Your task to perform on an android device: Open Google Chrome and click the shortcut for Amazon.com Image 0: 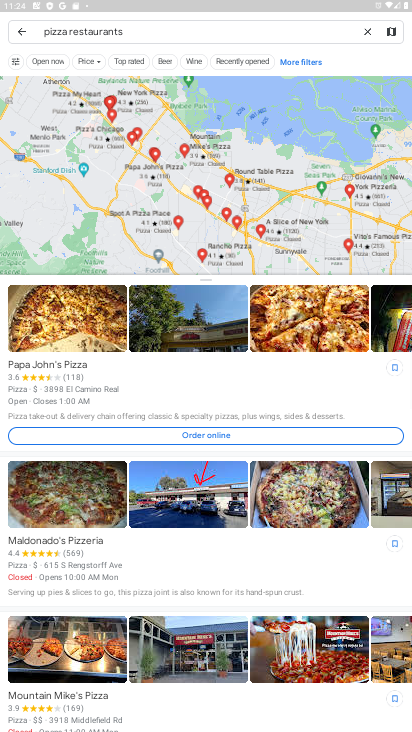
Step 0: press home button
Your task to perform on an android device: Open Google Chrome and click the shortcut for Amazon.com Image 1: 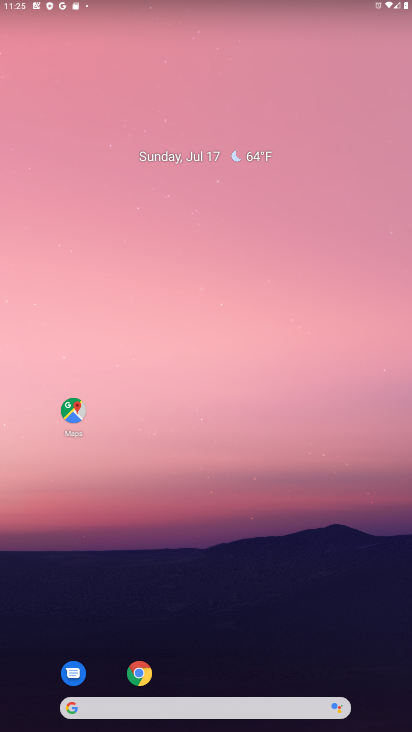
Step 1: drag from (168, 700) to (220, 111)
Your task to perform on an android device: Open Google Chrome and click the shortcut for Amazon.com Image 2: 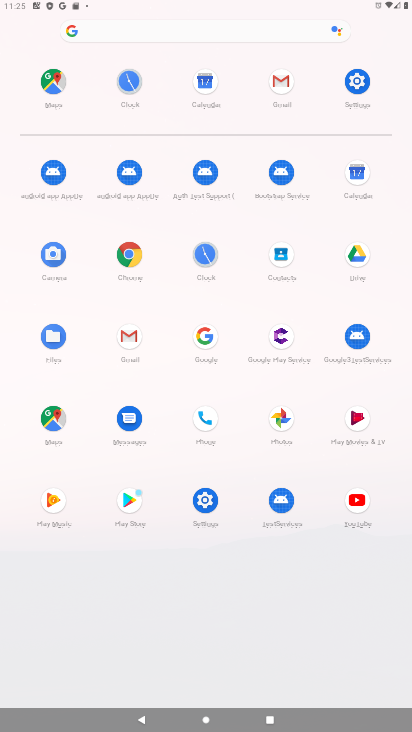
Step 2: click (129, 255)
Your task to perform on an android device: Open Google Chrome and click the shortcut for Amazon.com Image 3: 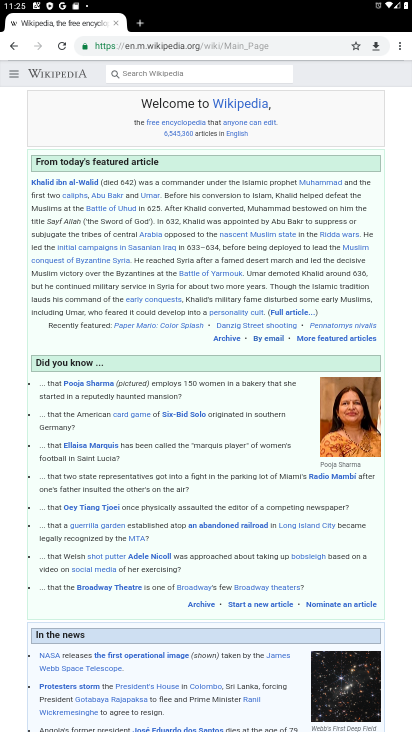
Step 3: click (141, 24)
Your task to perform on an android device: Open Google Chrome and click the shortcut for Amazon.com Image 4: 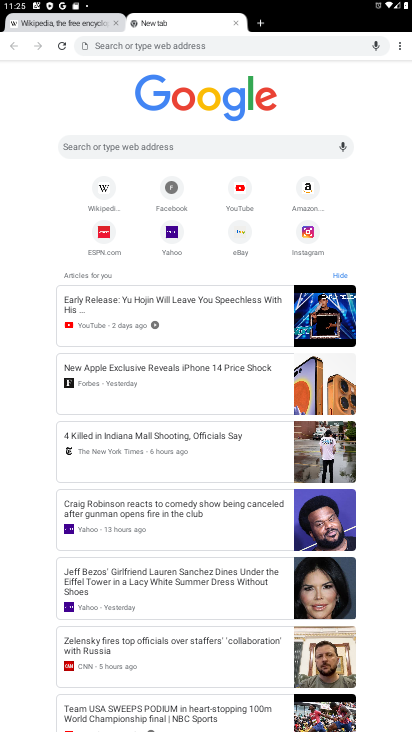
Step 4: click (305, 186)
Your task to perform on an android device: Open Google Chrome and click the shortcut for Amazon.com Image 5: 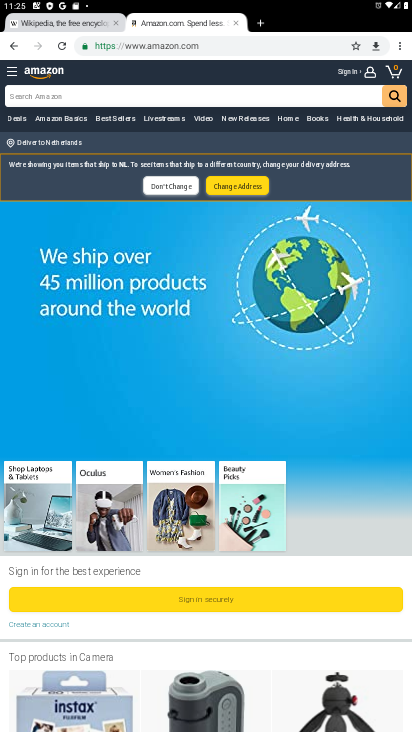
Step 5: task complete